Your task to perform on an android device: Open calendar and show me the first week of next month Image 0: 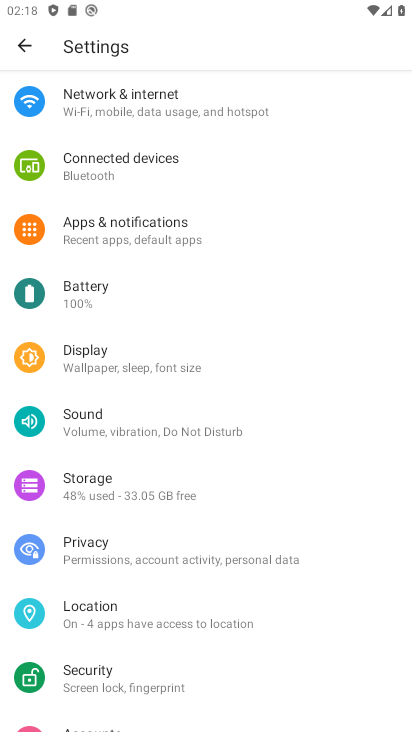
Step 0: press home button
Your task to perform on an android device: Open calendar and show me the first week of next month Image 1: 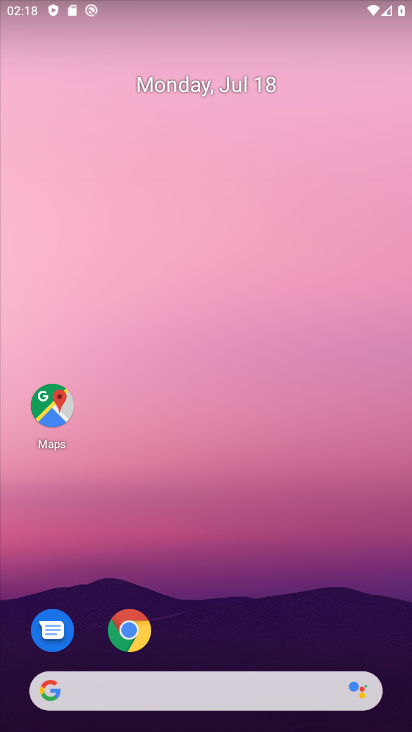
Step 1: click (193, 78)
Your task to perform on an android device: Open calendar and show me the first week of next month Image 2: 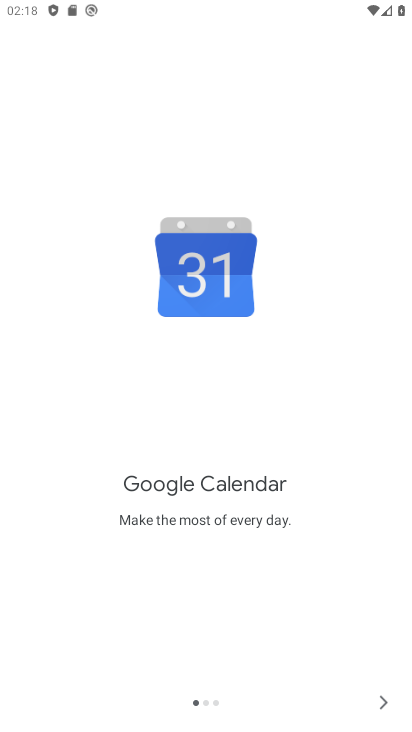
Step 2: click (383, 704)
Your task to perform on an android device: Open calendar and show me the first week of next month Image 3: 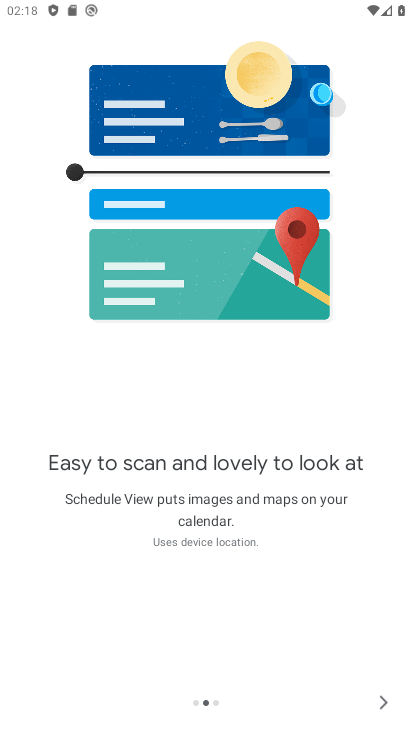
Step 3: click (383, 704)
Your task to perform on an android device: Open calendar and show me the first week of next month Image 4: 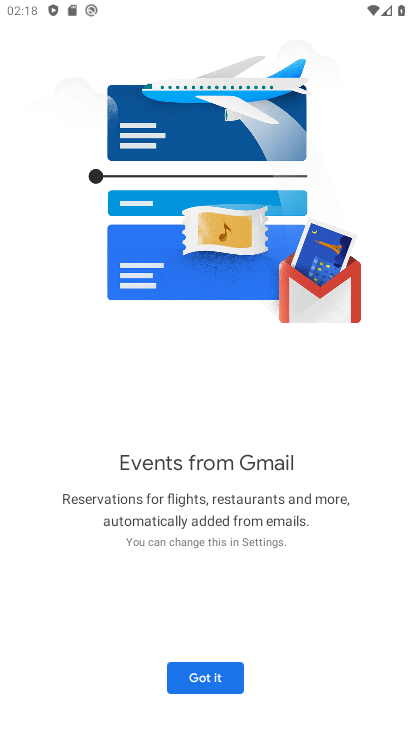
Step 4: click (195, 682)
Your task to perform on an android device: Open calendar and show me the first week of next month Image 5: 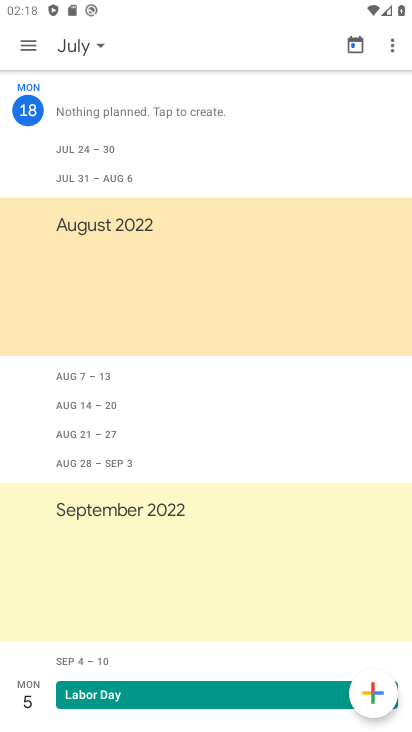
Step 5: task complete